Your task to perform on an android device: toggle pop-ups in chrome Image 0: 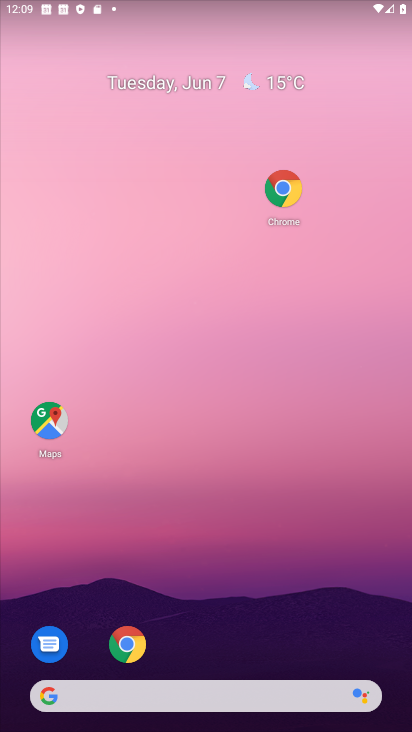
Step 0: click (287, 191)
Your task to perform on an android device: toggle pop-ups in chrome Image 1: 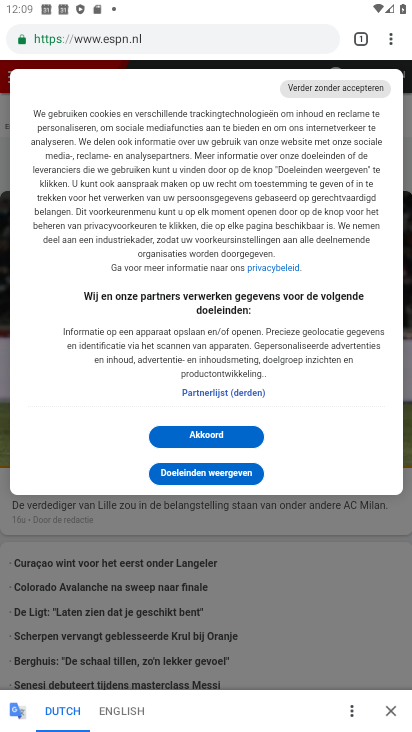
Step 1: click (390, 35)
Your task to perform on an android device: toggle pop-ups in chrome Image 2: 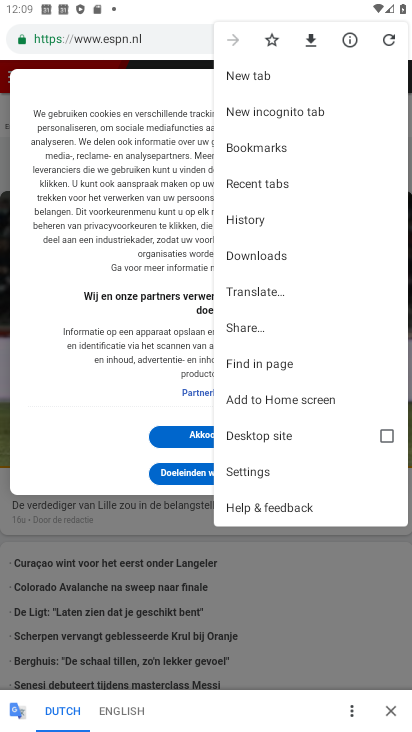
Step 2: click (262, 480)
Your task to perform on an android device: toggle pop-ups in chrome Image 3: 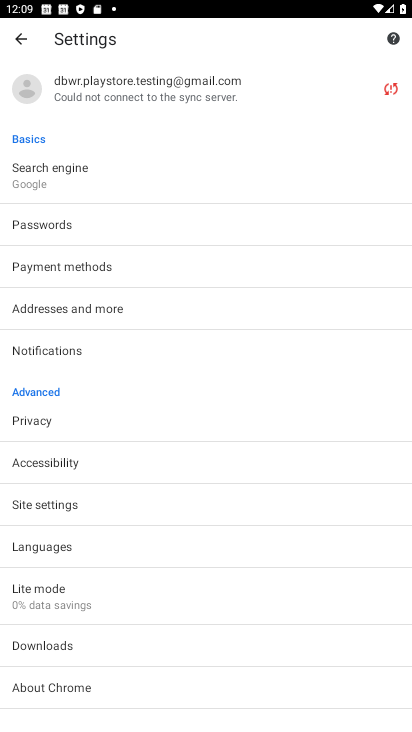
Step 3: drag from (184, 591) to (191, 74)
Your task to perform on an android device: toggle pop-ups in chrome Image 4: 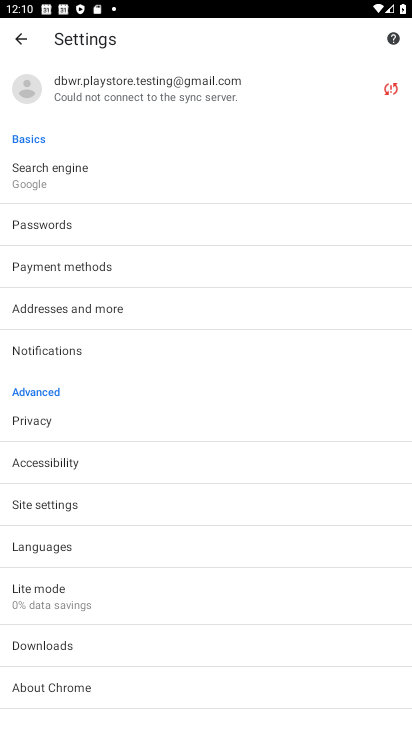
Step 4: click (68, 498)
Your task to perform on an android device: toggle pop-ups in chrome Image 5: 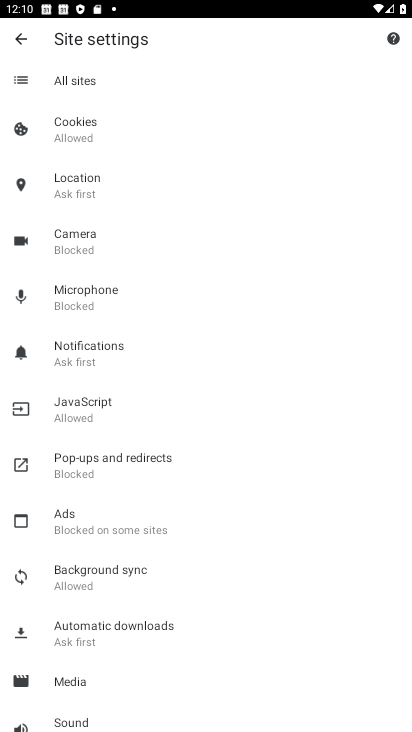
Step 5: click (135, 459)
Your task to perform on an android device: toggle pop-ups in chrome Image 6: 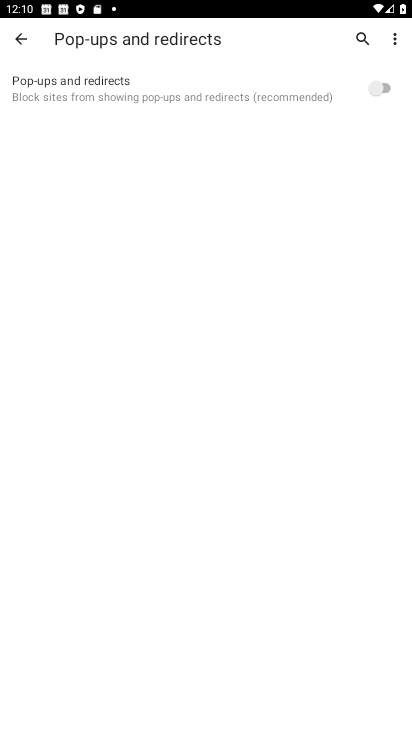
Step 6: click (371, 88)
Your task to perform on an android device: toggle pop-ups in chrome Image 7: 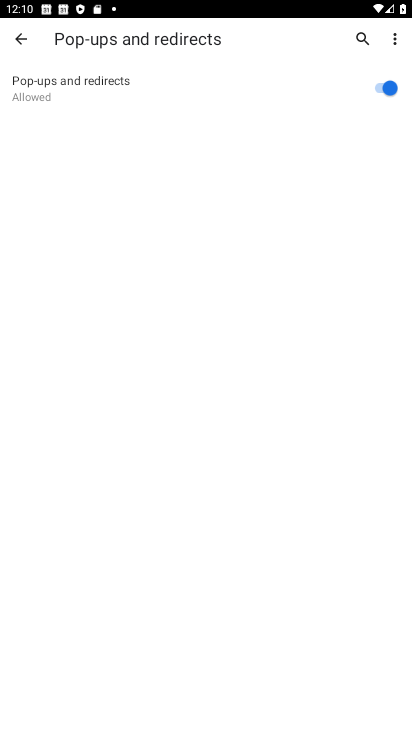
Step 7: task complete